Your task to perform on an android device: Open Reddit.com Image 0: 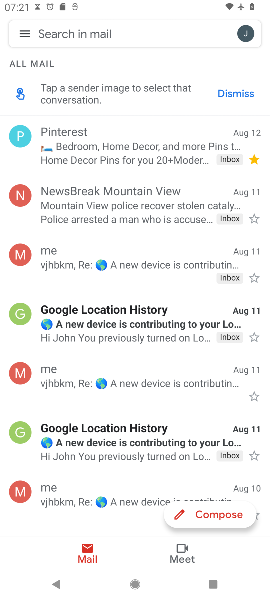
Step 0: press home button
Your task to perform on an android device: Open Reddit.com Image 1: 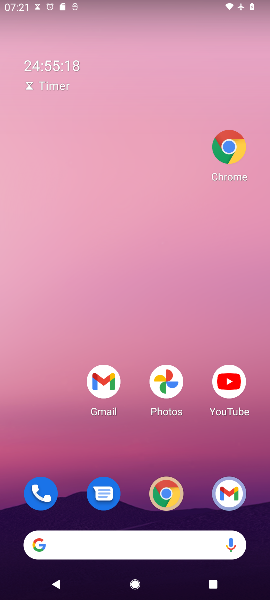
Step 1: click (34, 544)
Your task to perform on an android device: Open Reddit.com Image 2: 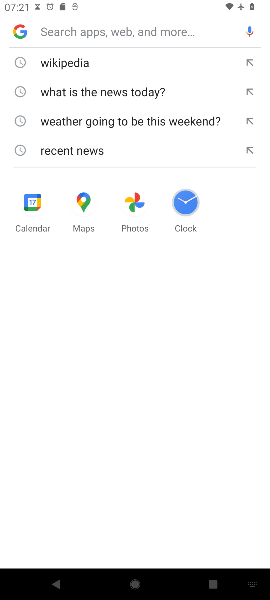
Step 2: type " Reddit.com"
Your task to perform on an android device: Open Reddit.com Image 3: 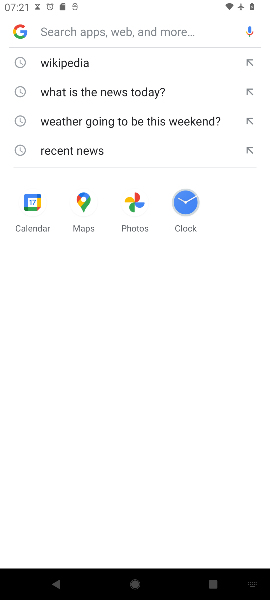
Step 3: click (84, 34)
Your task to perform on an android device: Open Reddit.com Image 4: 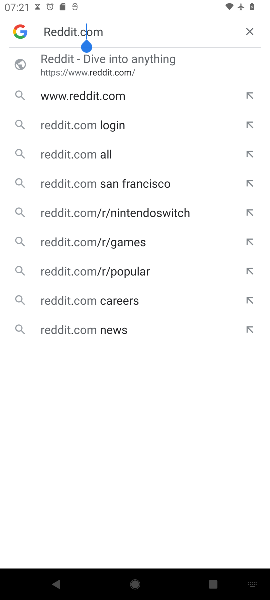
Step 4: press enter
Your task to perform on an android device: Open Reddit.com Image 5: 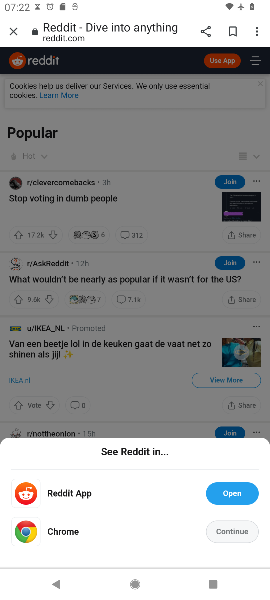
Step 5: task complete